Your task to perform on an android device: set the stopwatch Image 0: 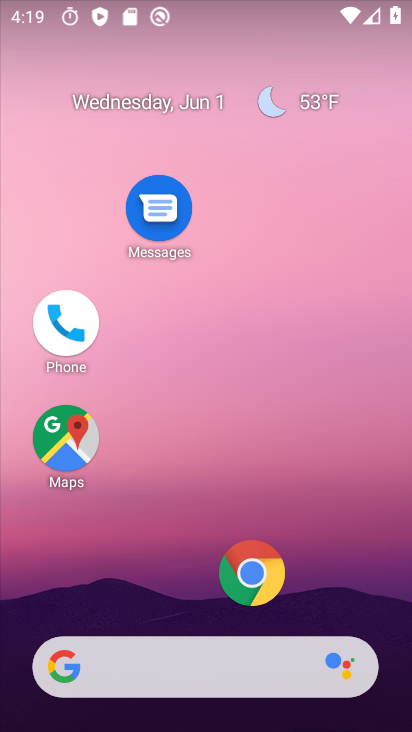
Step 0: drag from (167, 596) to (224, 163)
Your task to perform on an android device: set the stopwatch Image 1: 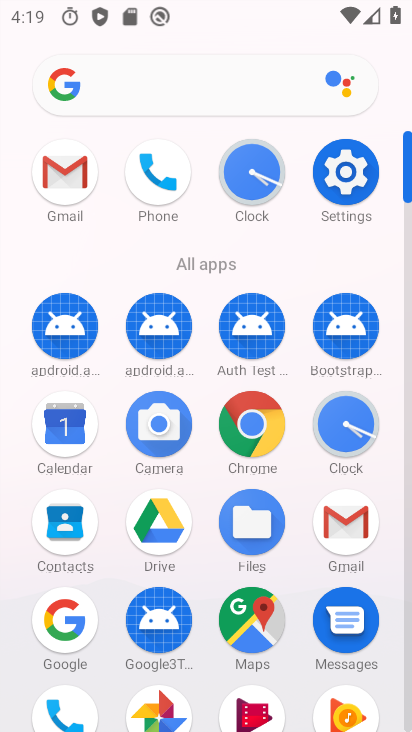
Step 1: click (345, 430)
Your task to perform on an android device: set the stopwatch Image 2: 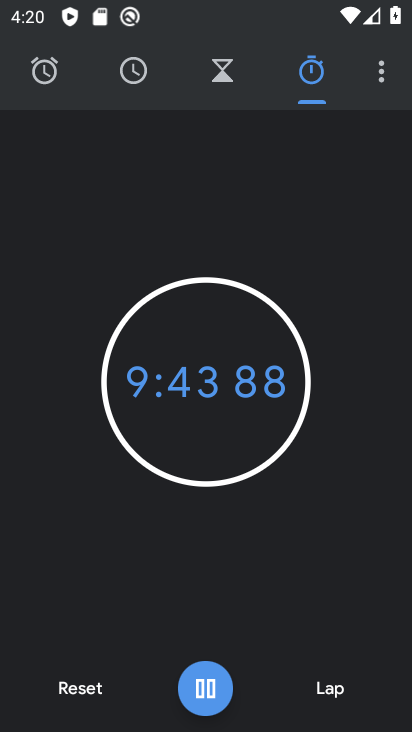
Step 2: task complete